Your task to perform on an android device: make emails show in primary in the gmail app Image 0: 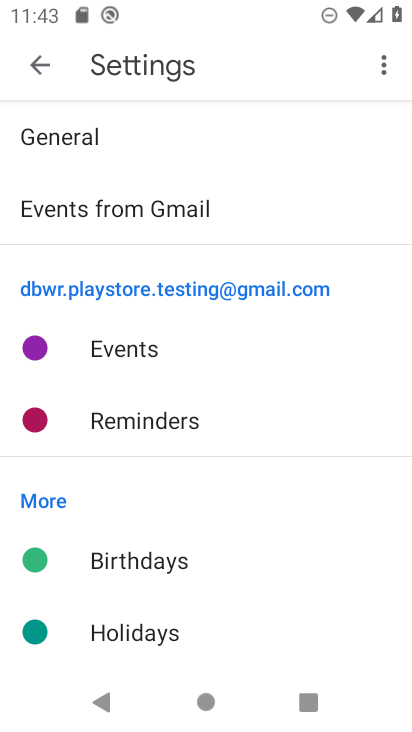
Step 0: click (28, 70)
Your task to perform on an android device: make emails show in primary in the gmail app Image 1: 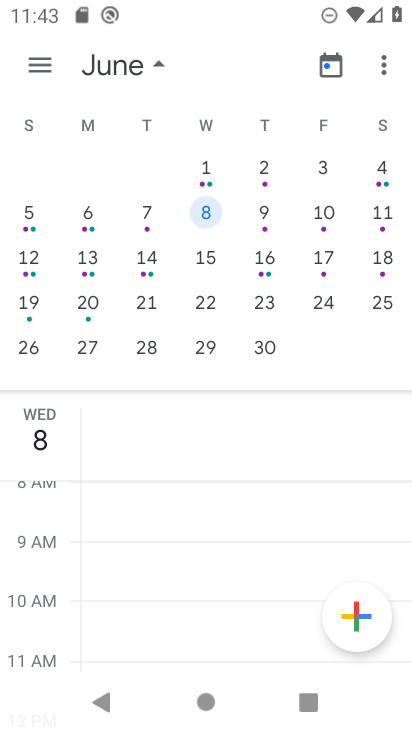
Step 1: press home button
Your task to perform on an android device: make emails show in primary in the gmail app Image 2: 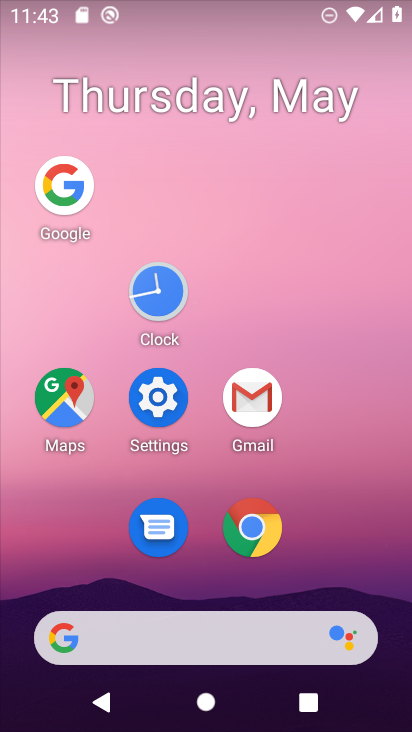
Step 2: click (267, 421)
Your task to perform on an android device: make emails show in primary in the gmail app Image 3: 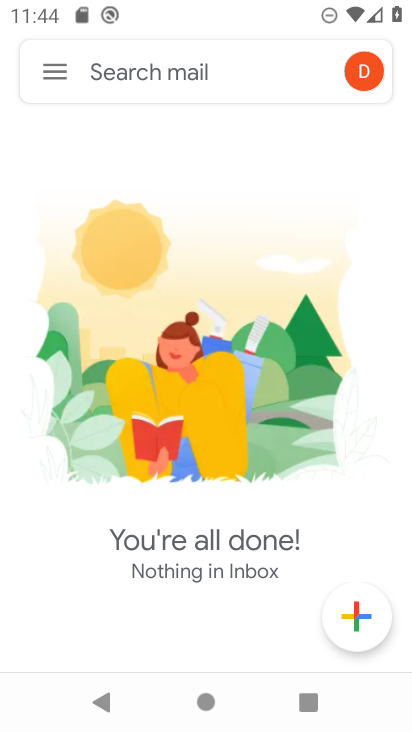
Step 3: click (57, 82)
Your task to perform on an android device: make emails show in primary in the gmail app Image 4: 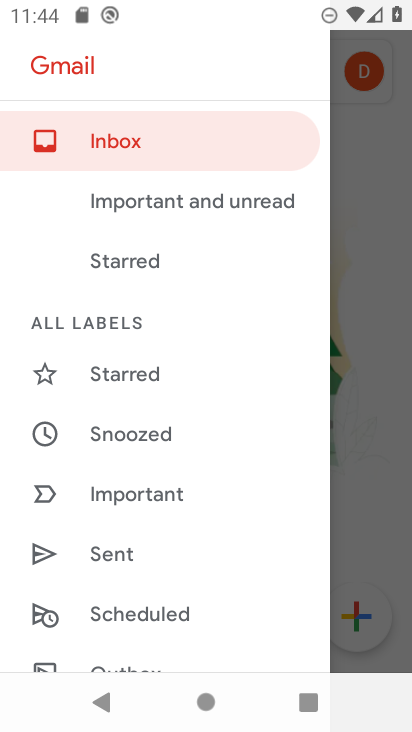
Step 4: drag from (109, 506) to (86, 322)
Your task to perform on an android device: make emails show in primary in the gmail app Image 5: 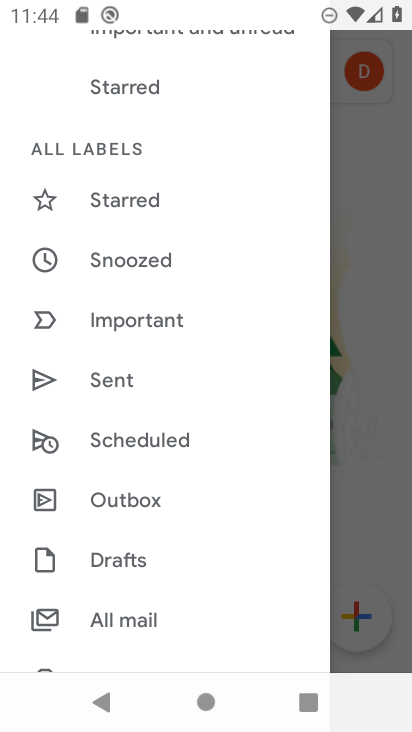
Step 5: drag from (177, 653) to (123, 390)
Your task to perform on an android device: make emails show in primary in the gmail app Image 6: 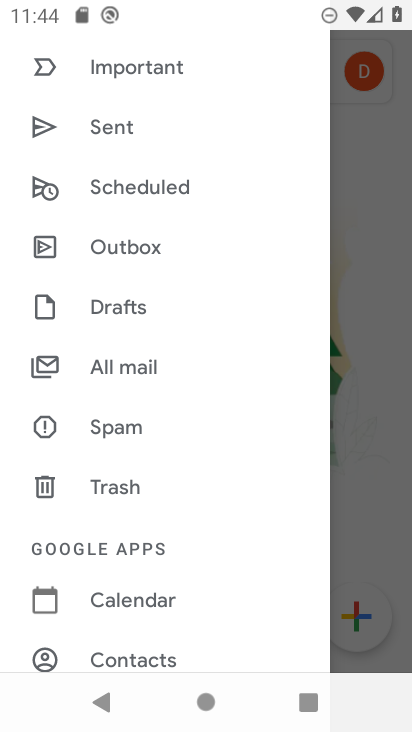
Step 6: drag from (165, 570) to (125, 347)
Your task to perform on an android device: make emails show in primary in the gmail app Image 7: 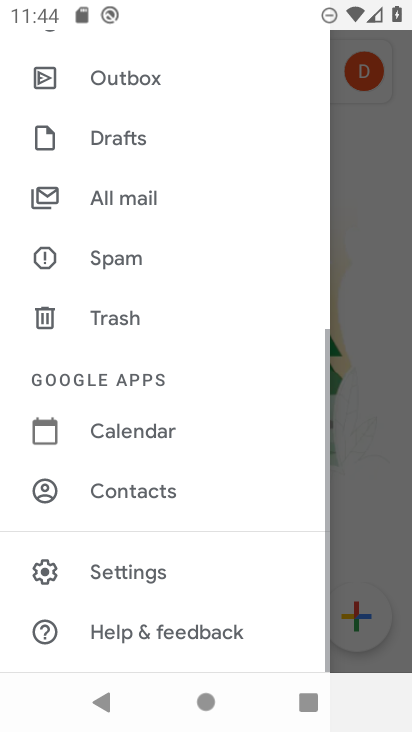
Step 7: click (176, 554)
Your task to perform on an android device: make emails show in primary in the gmail app Image 8: 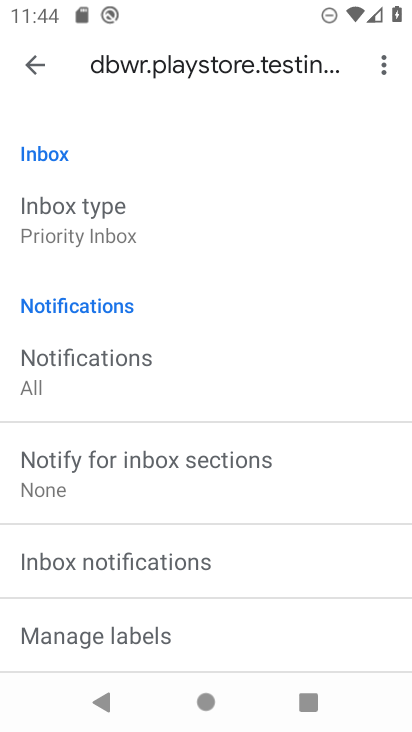
Step 8: drag from (177, 389) to (224, 215)
Your task to perform on an android device: make emails show in primary in the gmail app Image 9: 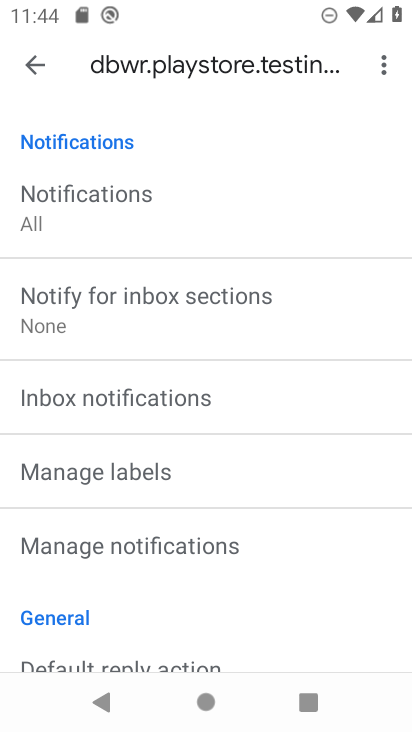
Step 9: click (215, 376)
Your task to perform on an android device: make emails show in primary in the gmail app Image 10: 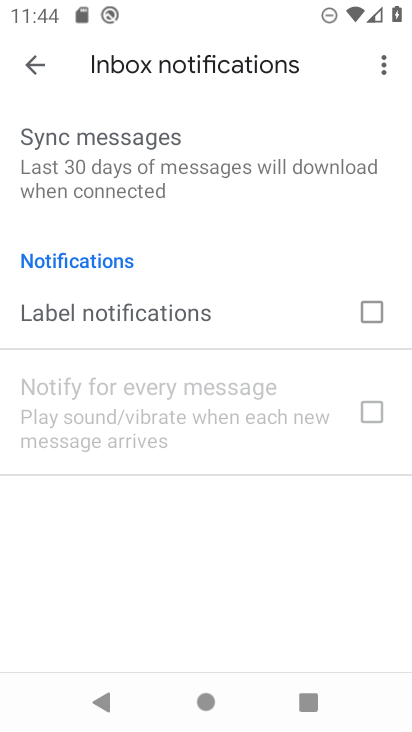
Step 10: click (25, 69)
Your task to perform on an android device: make emails show in primary in the gmail app Image 11: 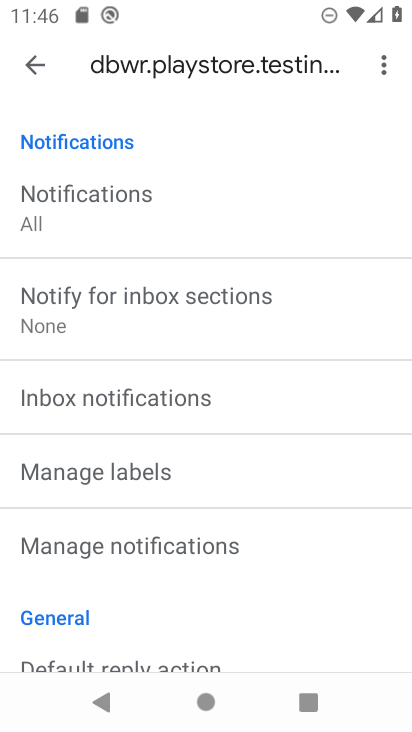
Step 11: task complete